Your task to perform on an android device: turn off improve location accuracy Image 0: 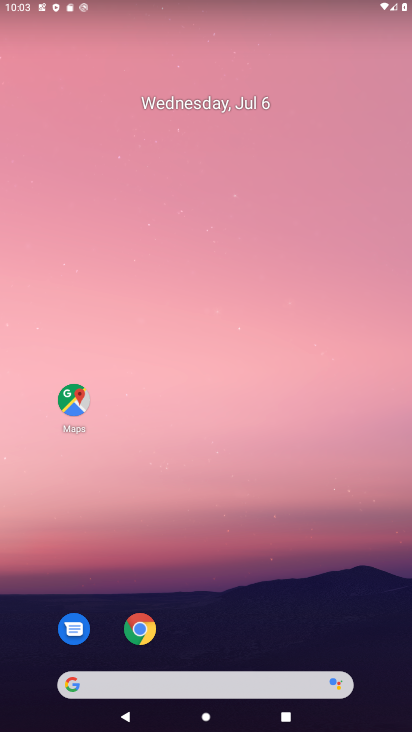
Step 0: drag from (212, 636) to (197, 96)
Your task to perform on an android device: turn off improve location accuracy Image 1: 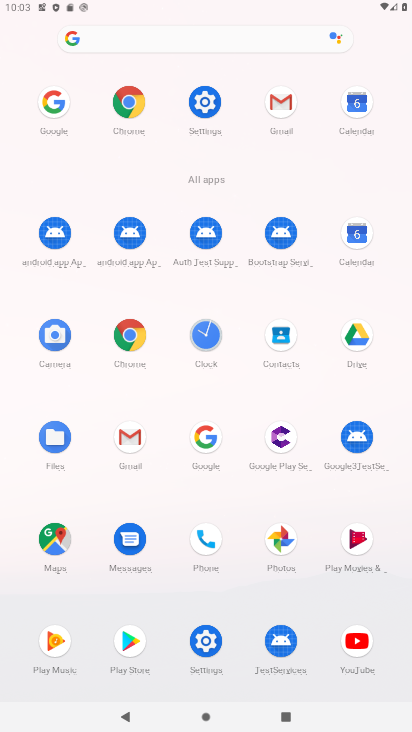
Step 1: click (206, 101)
Your task to perform on an android device: turn off improve location accuracy Image 2: 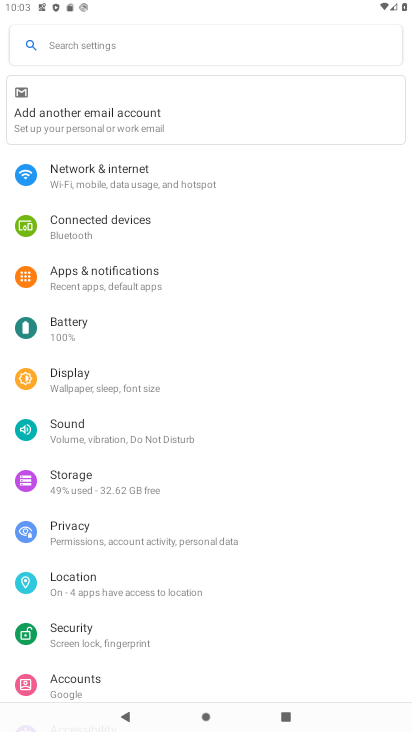
Step 2: click (80, 591)
Your task to perform on an android device: turn off improve location accuracy Image 3: 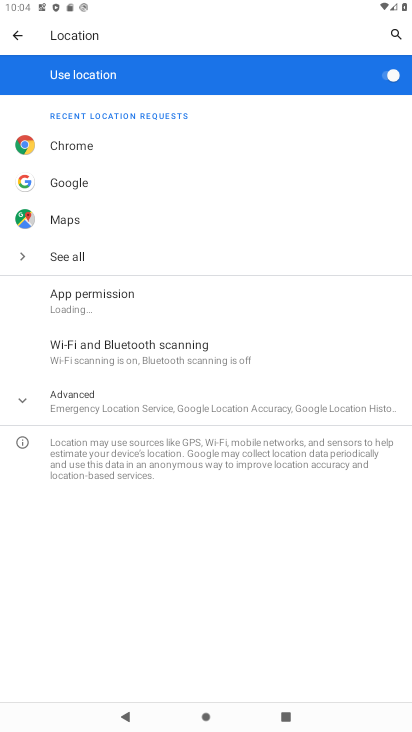
Step 3: click (124, 402)
Your task to perform on an android device: turn off improve location accuracy Image 4: 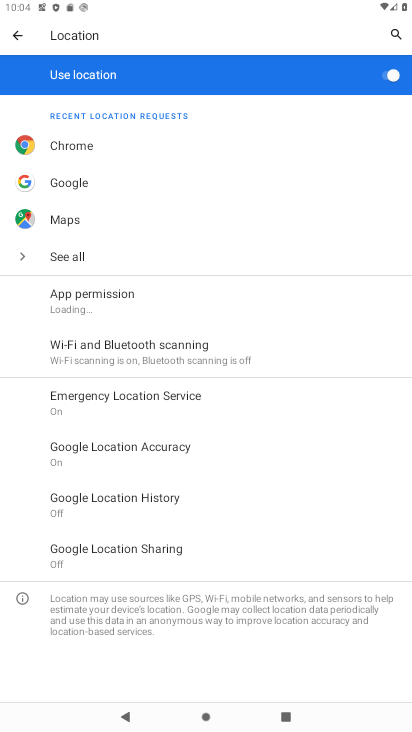
Step 4: drag from (192, 534) to (194, 390)
Your task to perform on an android device: turn off improve location accuracy Image 5: 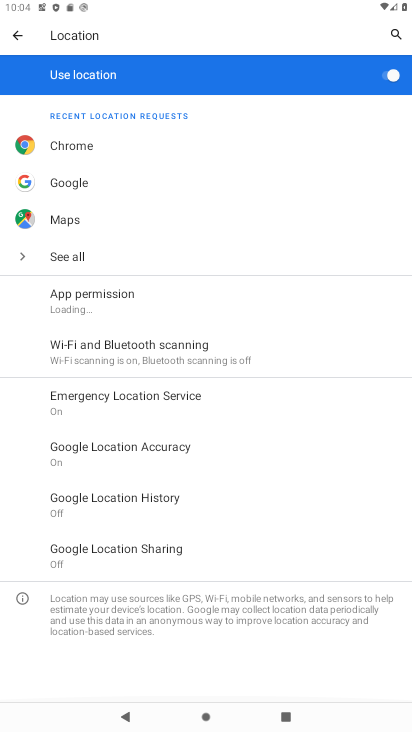
Step 5: click (135, 440)
Your task to perform on an android device: turn off improve location accuracy Image 6: 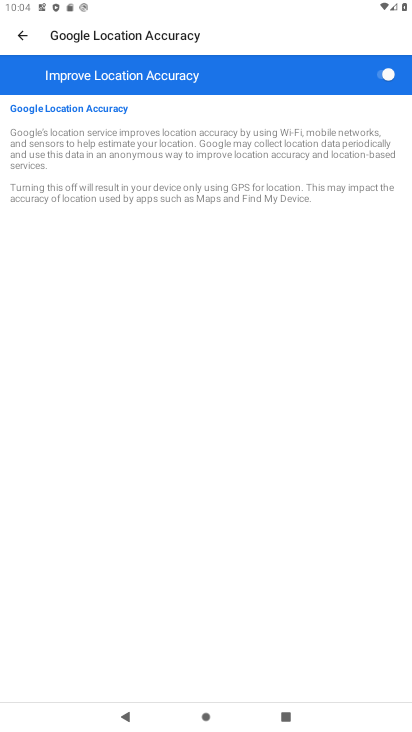
Step 6: click (380, 70)
Your task to perform on an android device: turn off improve location accuracy Image 7: 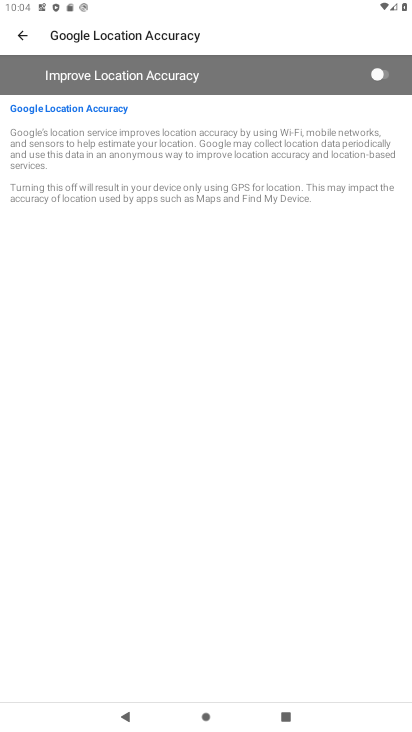
Step 7: task complete